Your task to perform on an android device: turn off location Image 0: 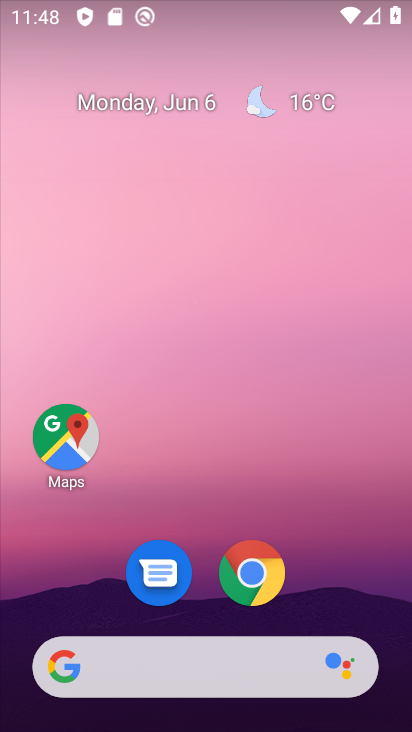
Step 0: press home button
Your task to perform on an android device: turn off location Image 1: 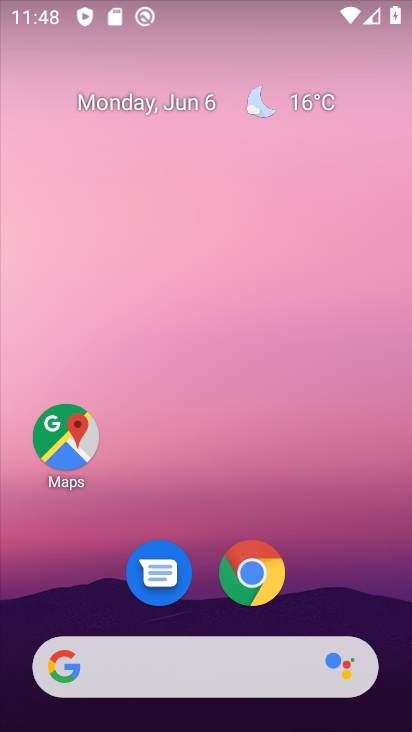
Step 1: drag from (327, 477) to (278, 58)
Your task to perform on an android device: turn off location Image 2: 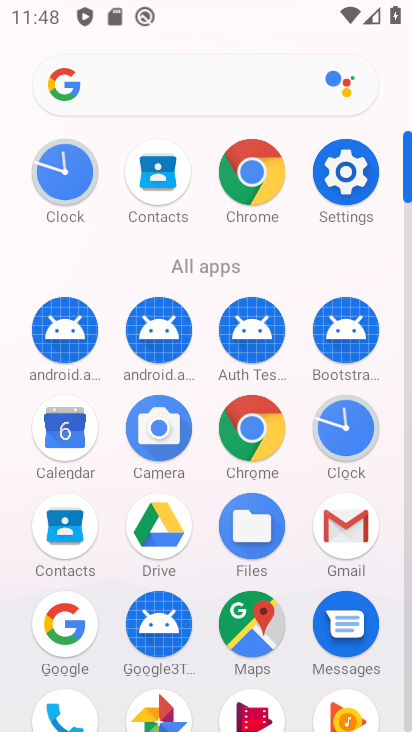
Step 2: click (349, 167)
Your task to perform on an android device: turn off location Image 3: 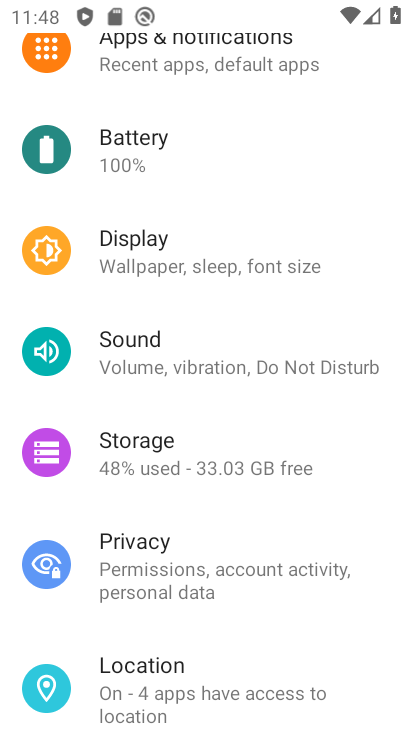
Step 3: click (142, 653)
Your task to perform on an android device: turn off location Image 4: 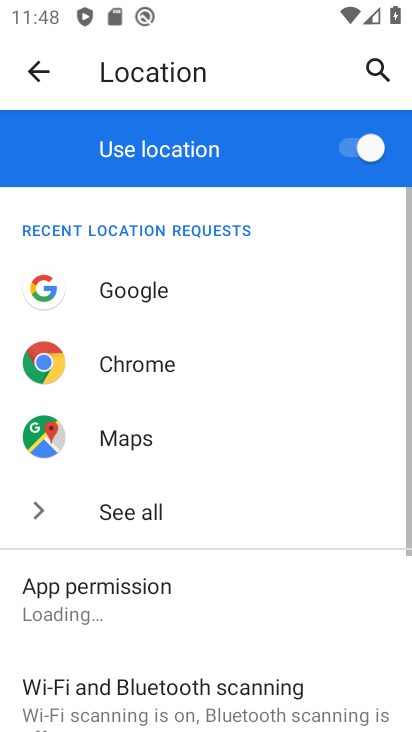
Step 4: click (340, 144)
Your task to perform on an android device: turn off location Image 5: 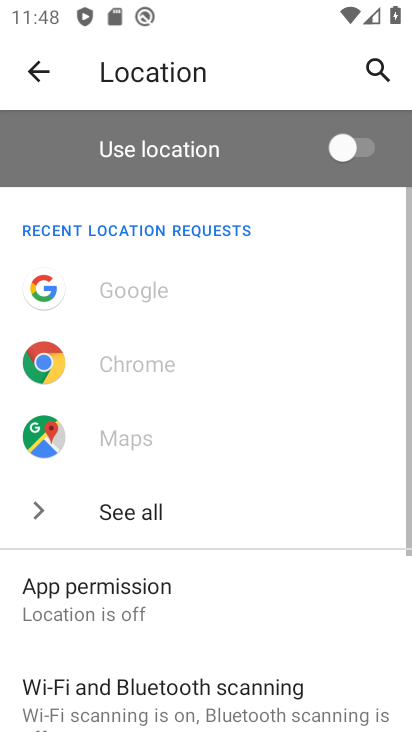
Step 5: task complete